Your task to perform on an android device: turn on translation in the chrome app Image 0: 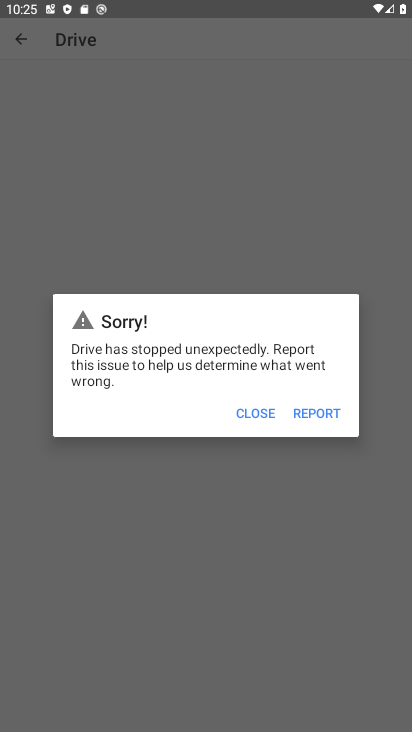
Step 0: press home button
Your task to perform on an android device: turn on translation in the chrome app Image 1: 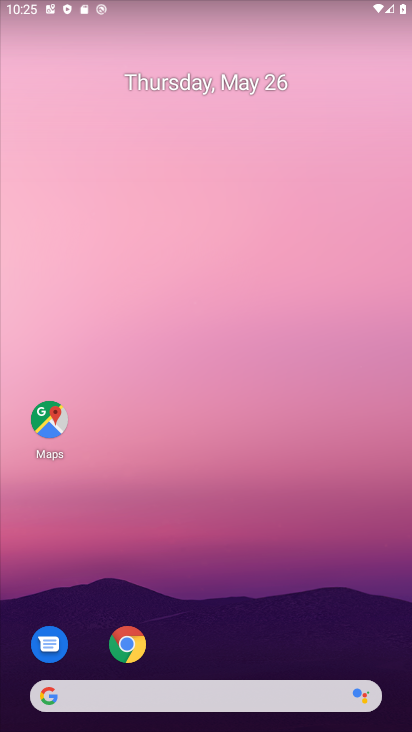
Step 1: drag from (324, 643) to (215, 5)
Your task to perform on an android device: turn on translation in the chrome app Image 2: 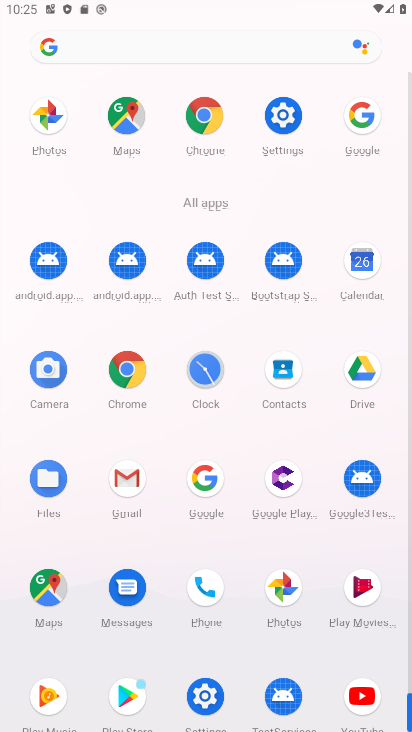
Step 2: click (111, 368)
Your task to perform on an android device: turn on translation in the chrome app Image 3: 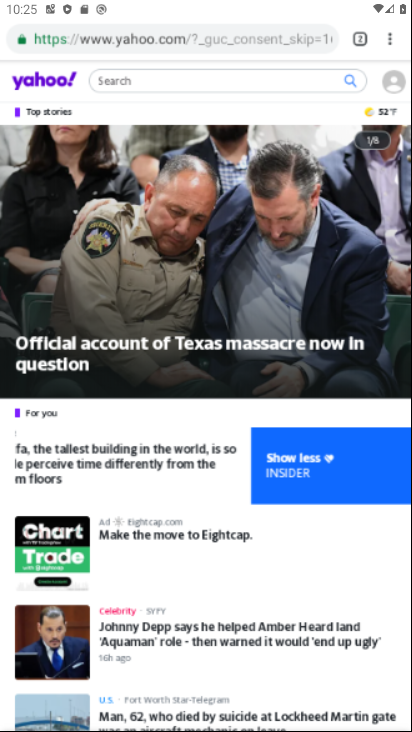
Step 3: press back button
Your task to perform on an android device: turn on translation in the chrome app Image 4: 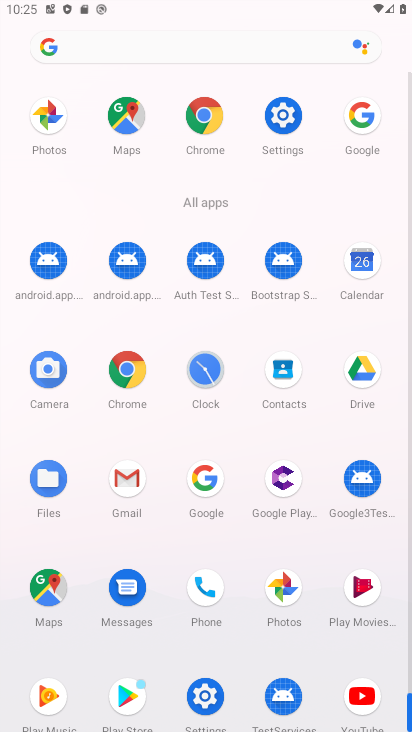
Step 4: click (209, 126)
Your task to perform on an android device: turn on translation in the chrome app Image 5: 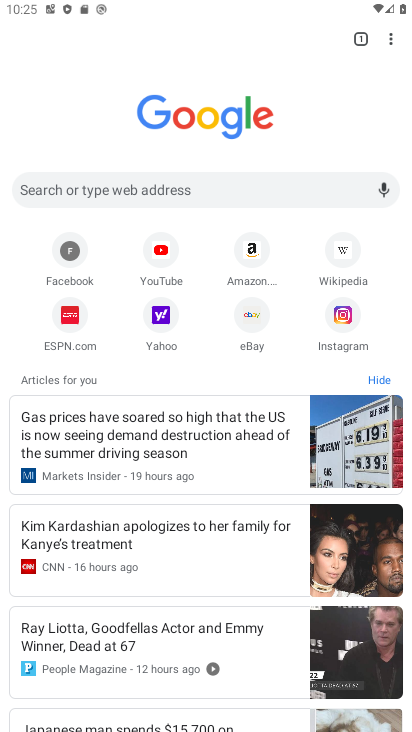
Step 5: click (395, 34)
Your task to perform on an android device: turn on translation in the chrome app Image 6: 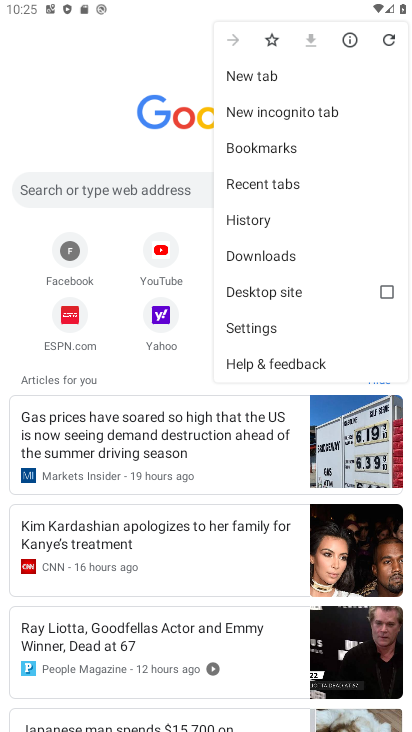
Step 6: click (283, 320)
Your task to perform on an android device: turn on translation in the chrome app Image 7: 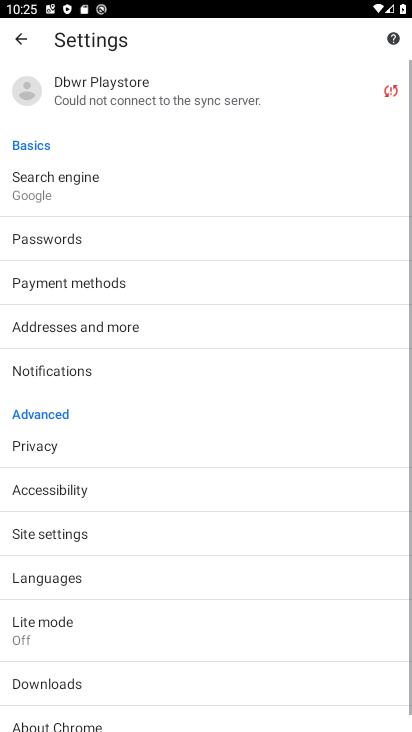
Step 7: click (83, 578)
Your task to perform on an android device: turn on translation in the chrome app Image 8: 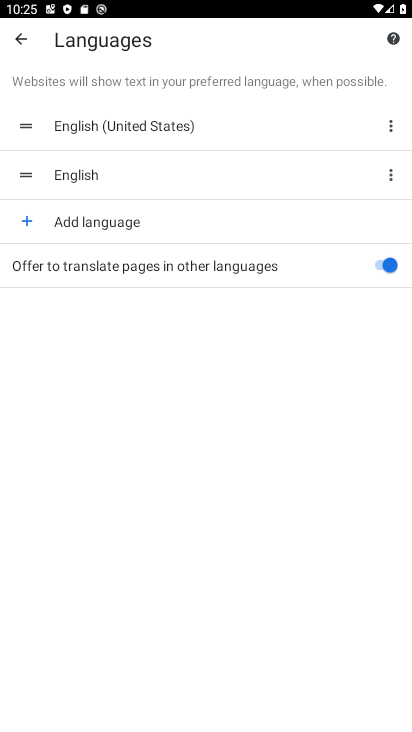
Step 8: task complete